Your task to perform on an android device: Go to internet settings Image 0: 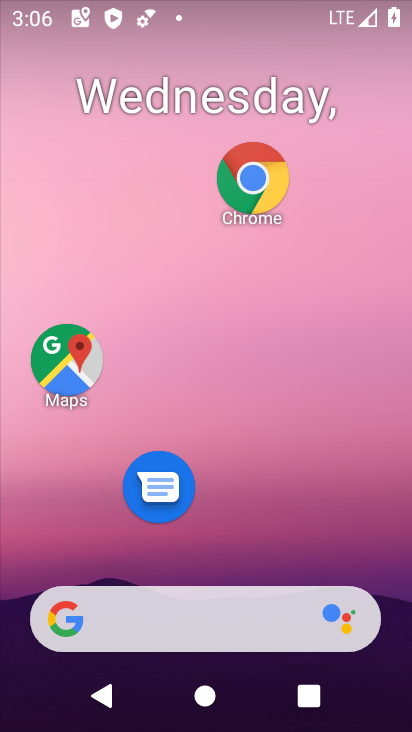
Step 0: drag from (256, 535) to (256, 50)
Your task to perform on an android device: Go to internet settings Image 1: 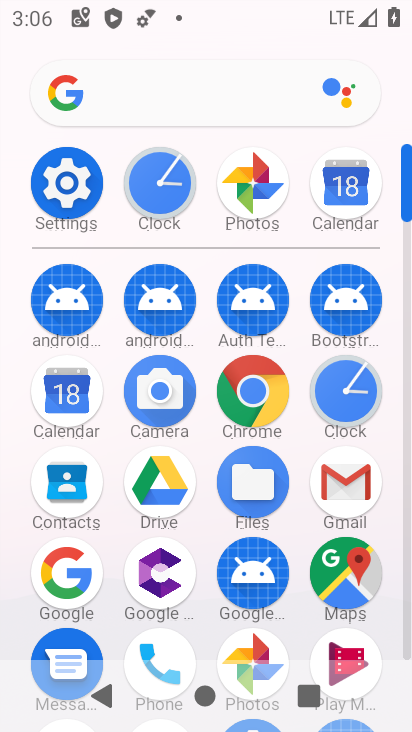
Step 1: click (67, 182)
Your task to perform on an android device: Go to internet settings Image 2: 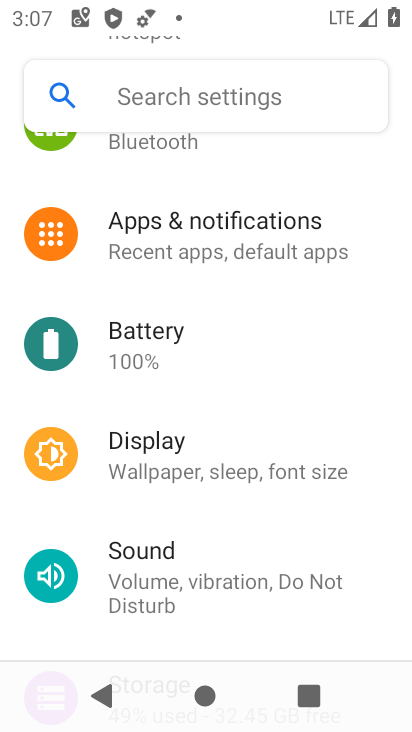
Step 2: drag from (186, 271) to (181, 462)
Your task to perform on an android device: Go to internet settings Image 3: 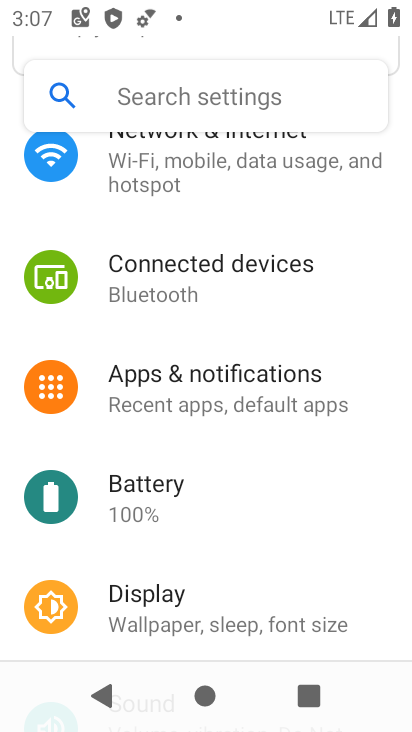
Step 3: click (165, 176)
Your task to perform on an android device: Go to internet settings Image 4: 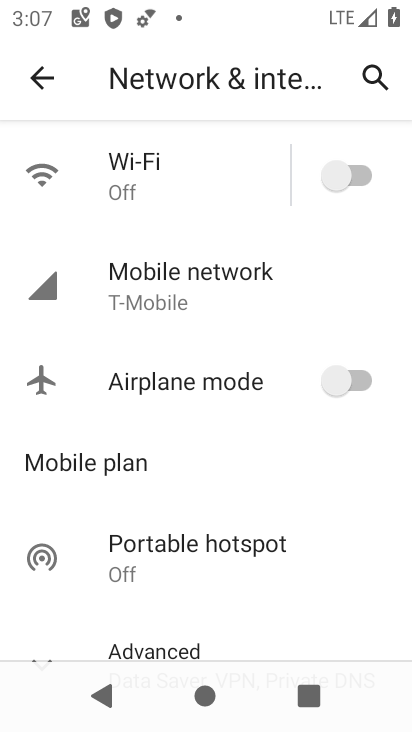
Step 4: click (90, 284)
Your task to perform on an android device: Go to internet settings Image 5: 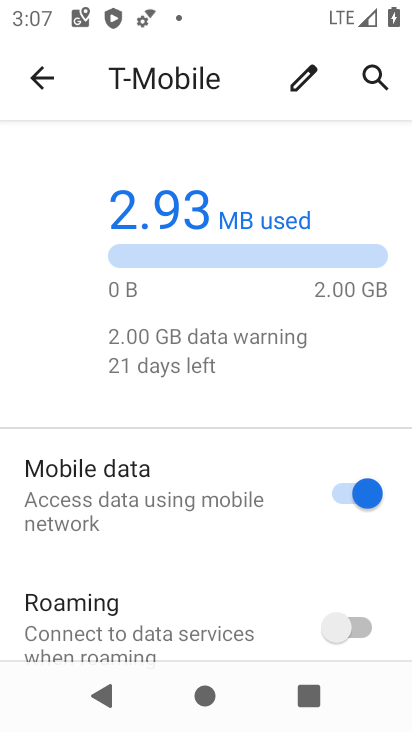
Step 5: task complete